Your task to perform on an android device: Toggle the flashlight Image 0: 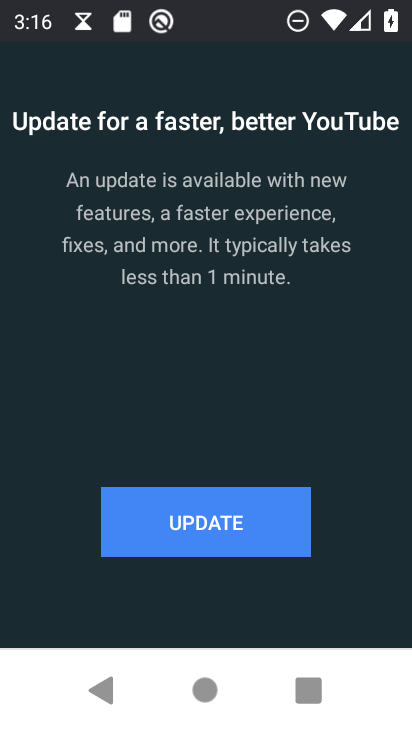
Step 0: press home button
Your task to perform on an android device: Toggle the flashlight Image 1: 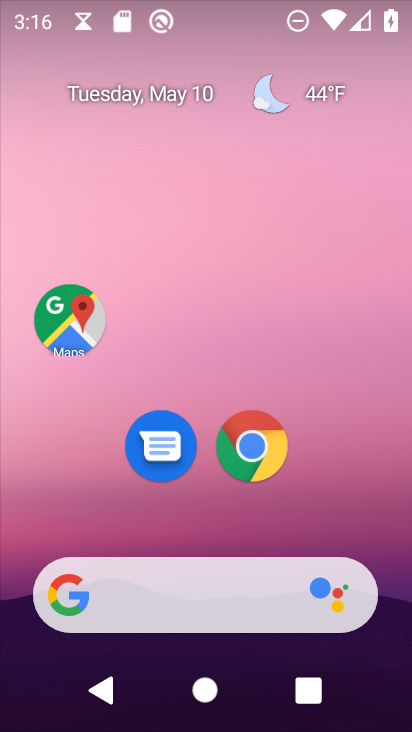
Step 1: drag from (348, 473) to (367, 0)
Your task to perform on an android device: Toggle the flashlight Image 2: 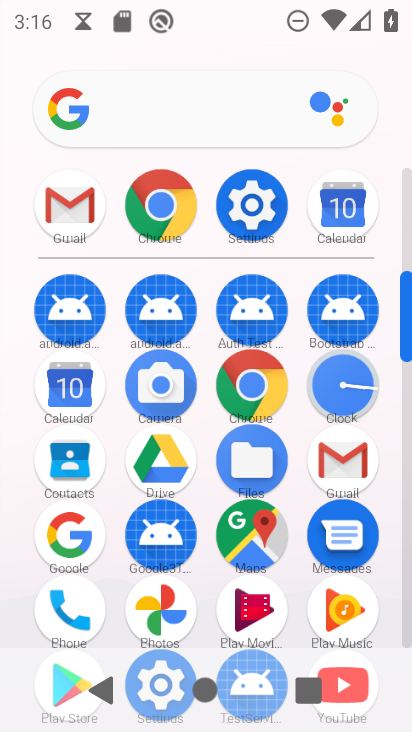
Step 2: click (265, 197)
Your task to perform on an android device: Toggle the flashlight Image 3: 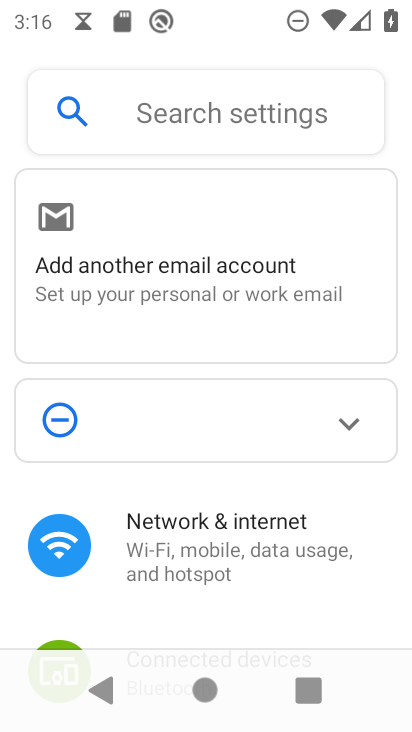
Step 3: task complete